Your task to perform on an android device: Search for alienware area 51 on costco, select the first entry, add it to the cart, then select checkout. Image 0: 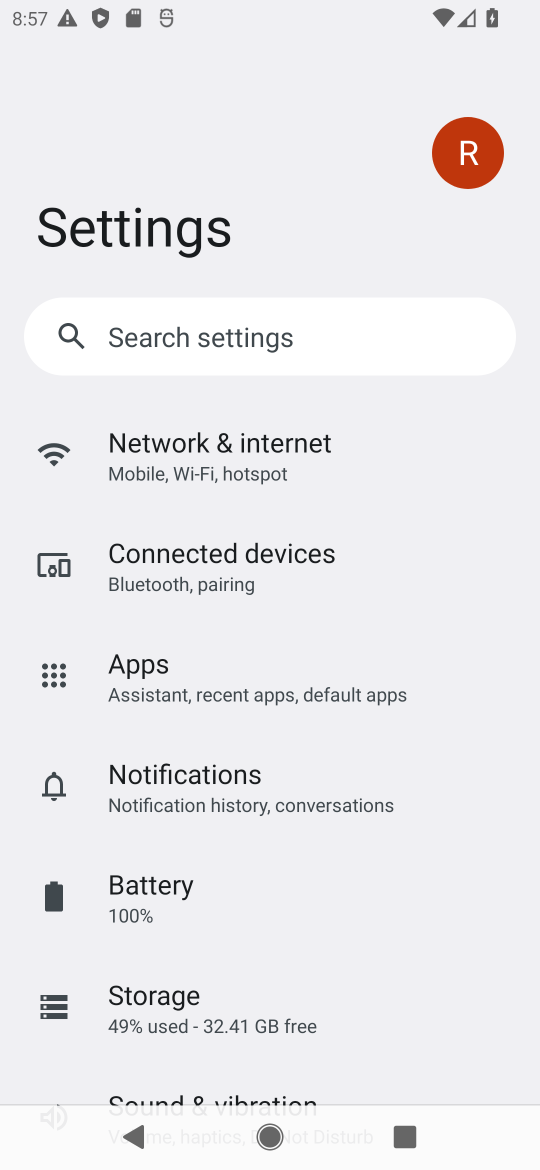
Step 0: press home button
Your task to perform on an android device: Search for alienware area 51 on costco, select the first entry, add it to the cart, then select checkout. Image 1: 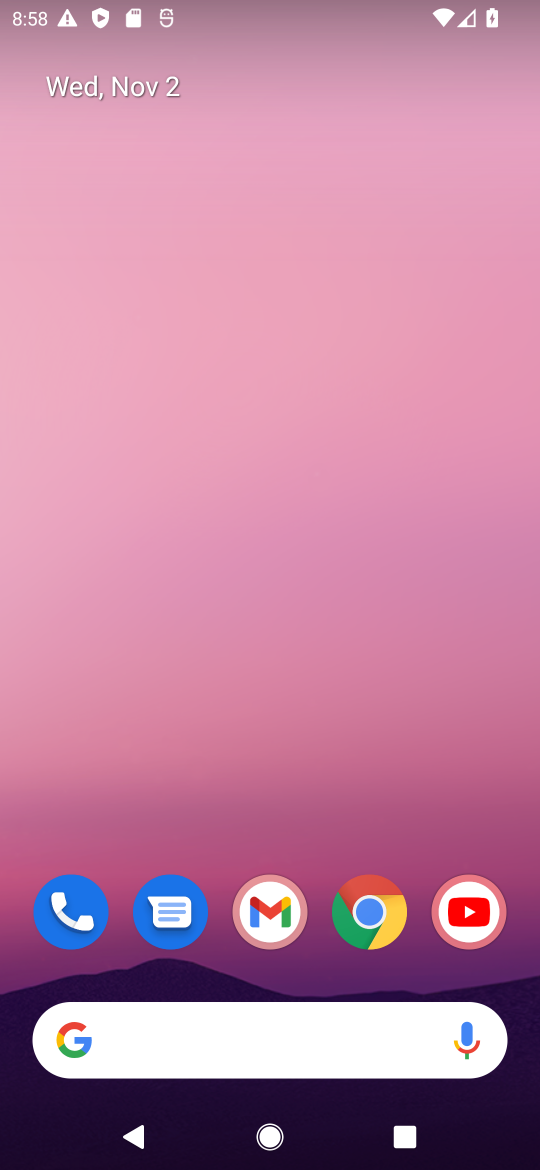
Step 1: drag from (344, 1112) to (241, 88)
Your task to perform on an android device: Search for alienware area 51 on costco, select the first entry, add it to the cart, then select checkout. Image 2: 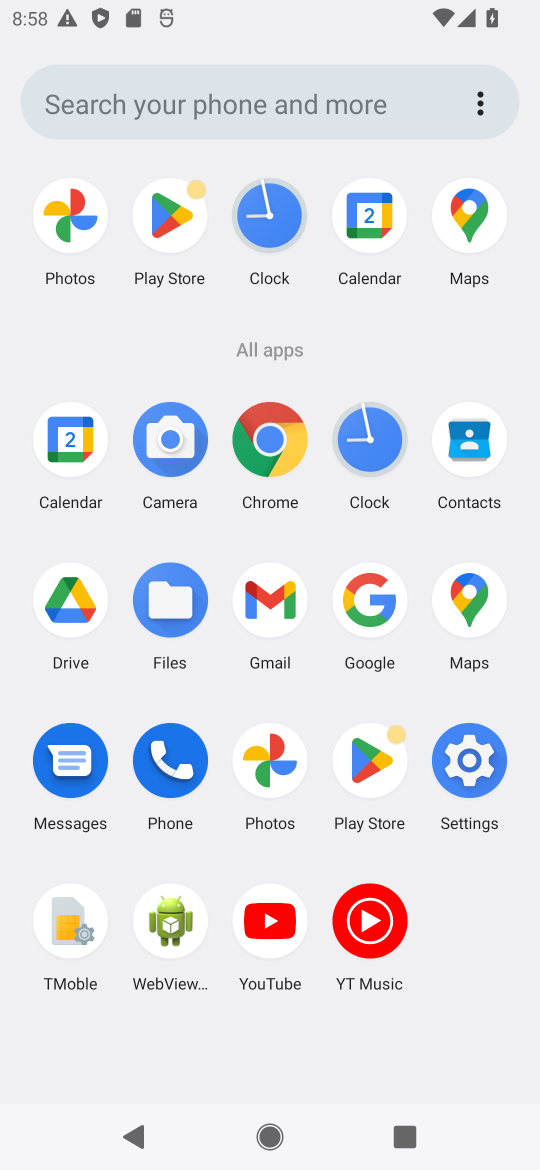
Step 2: click (260, 426)
Your task to perform on an android device: Search for alienware area 51 on costco, select the first entry, add it to the cart, then select checkout. Image 3: 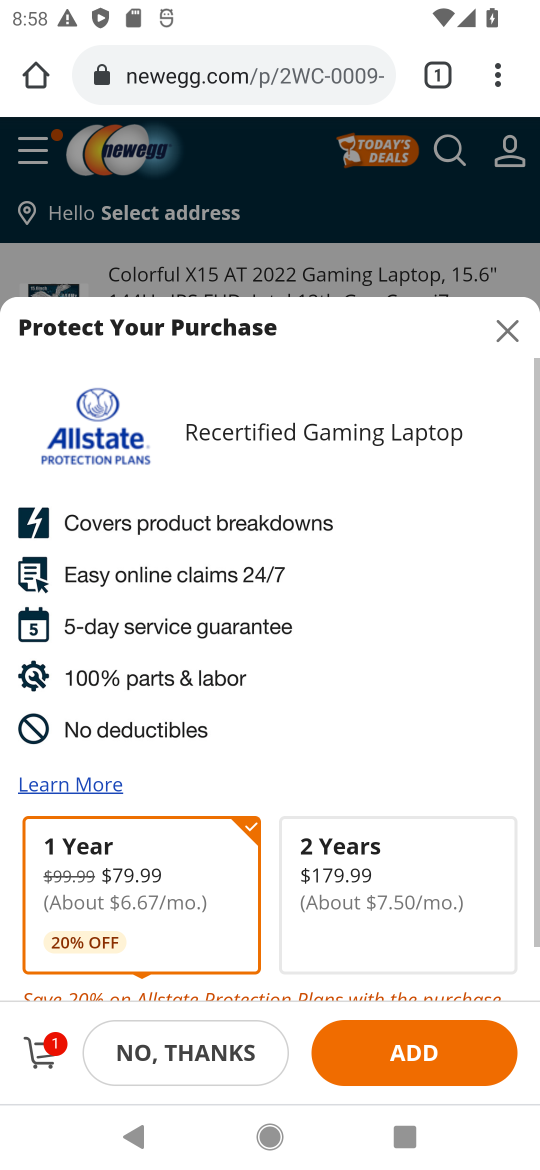
Step 3: click (228, 77)
Your task to perform on an android device: Search for alienware area 51 on costco, select the first entry, add it to the cart, then select checkout. Image 4: 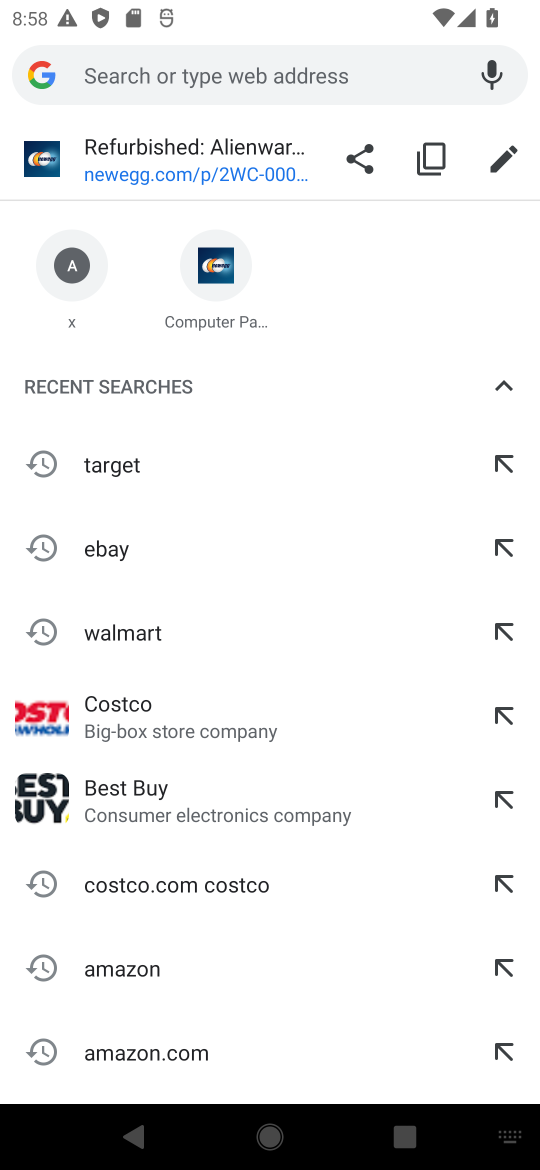
Step 4: click (192, 76)
Your task to perform on an android device: Search for alienware area 51 on costco, select the first entry, add it to the cart, then select checkout. Image 5: 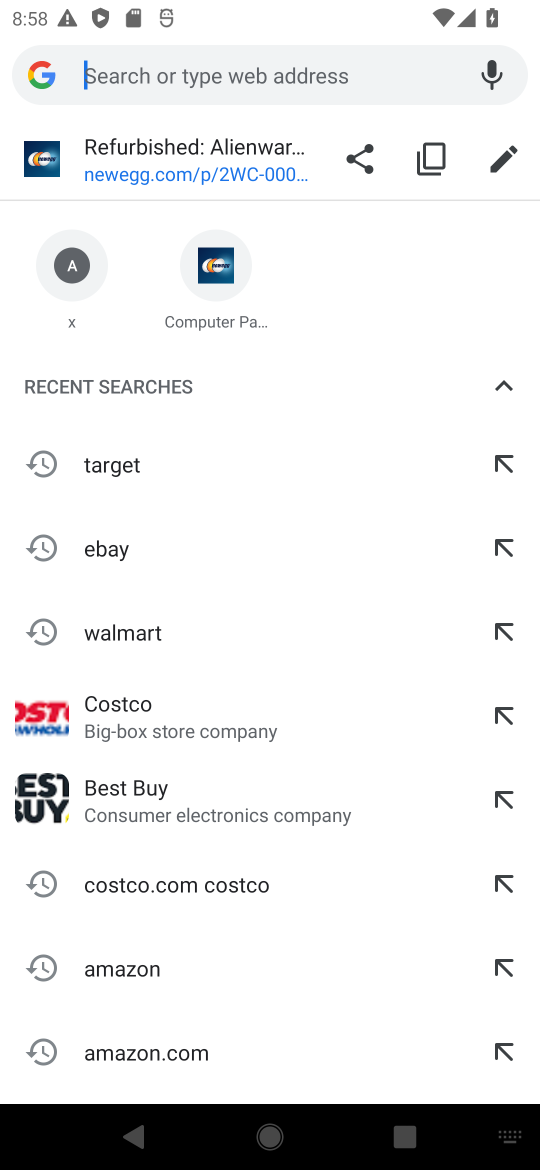
Step 5: type "costco"
Your task to perform on an android device: Search for alienware area 51 on costco, select the first entry, add it to the cart, then select checkout. Image 6: 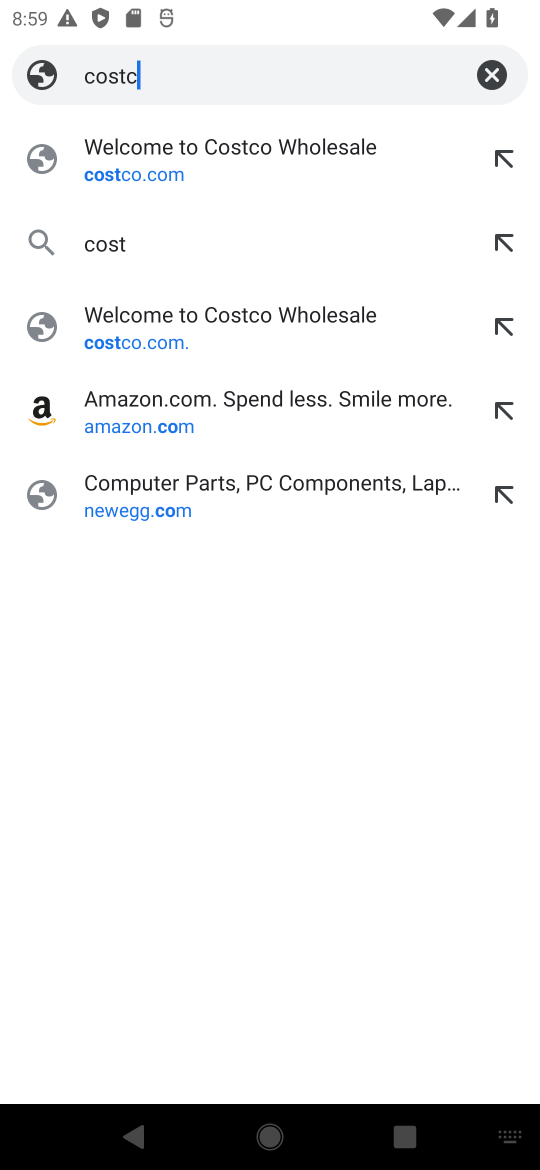
Step 6: type ""
Your task to perform on an android device: Search for alienware area 51 on costco, select the first entry, add it to the cart, then select checkout. Image 7: 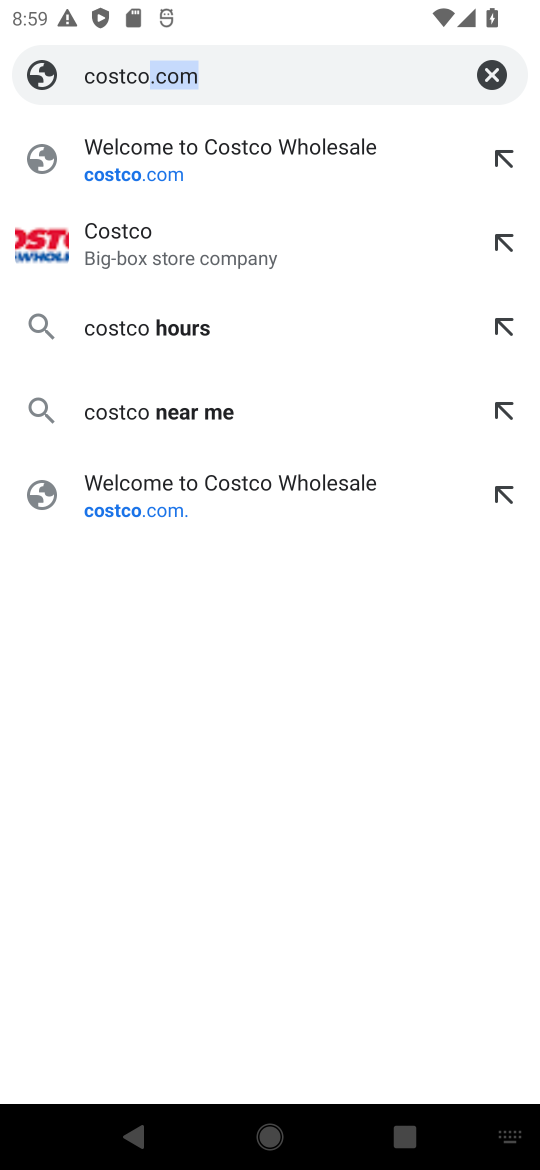
Step 7: click (135, 179)
Your task to perform on an android device: Search for alienware area 51 on costco, select the first entry, add it to the cart, then select checkout. Image 8: 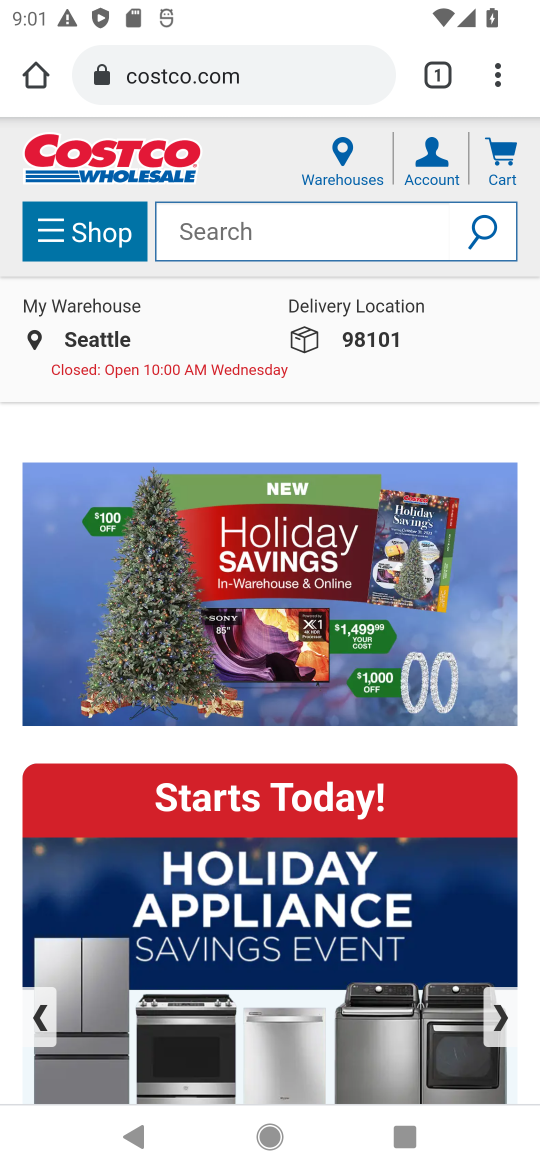
Step 8: click (208, 223)
Your task to perform on an android device: Search for alienware area 51 on costco, select the first entry, add it to the cart, then select checkout. Image 9: 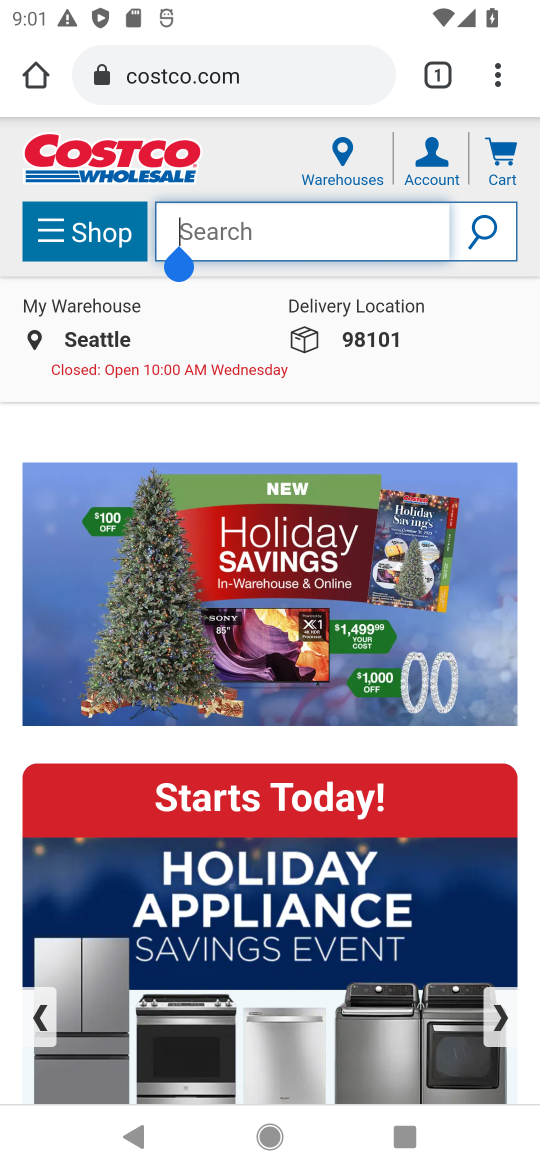
Step 9: type "alienware area 51"
Your task to perform on an android device: Search for alienware area 51 on costco, select the first entry, add it to the cart, then select checkout. Image 10: 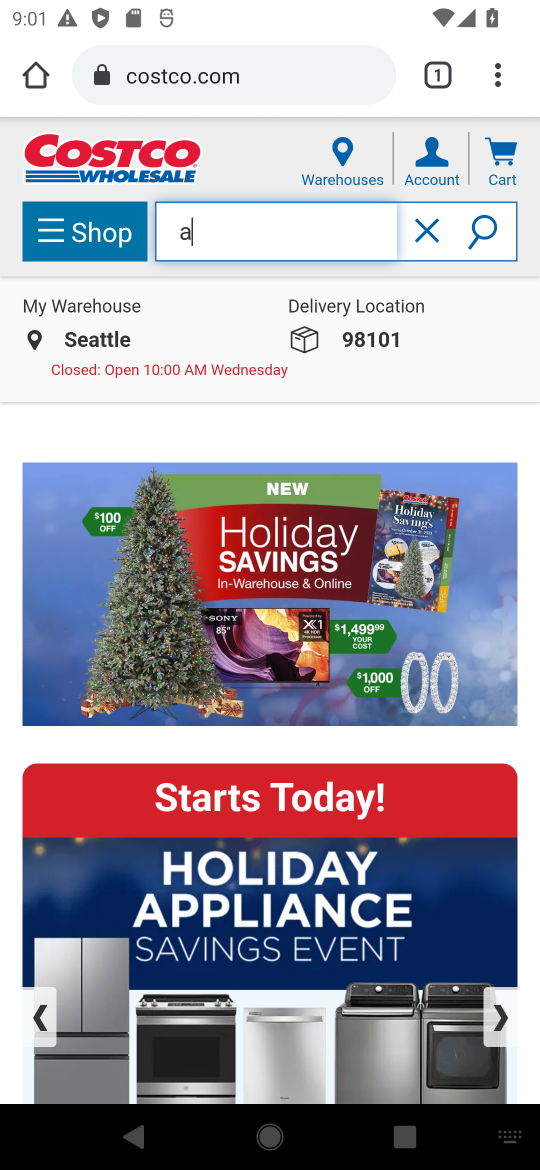
Step 10: type ""
Your task to perform on an android device: Search for alienware area 51 on costco, select the first entry, add it to the cart, then select checkout. Image 11: 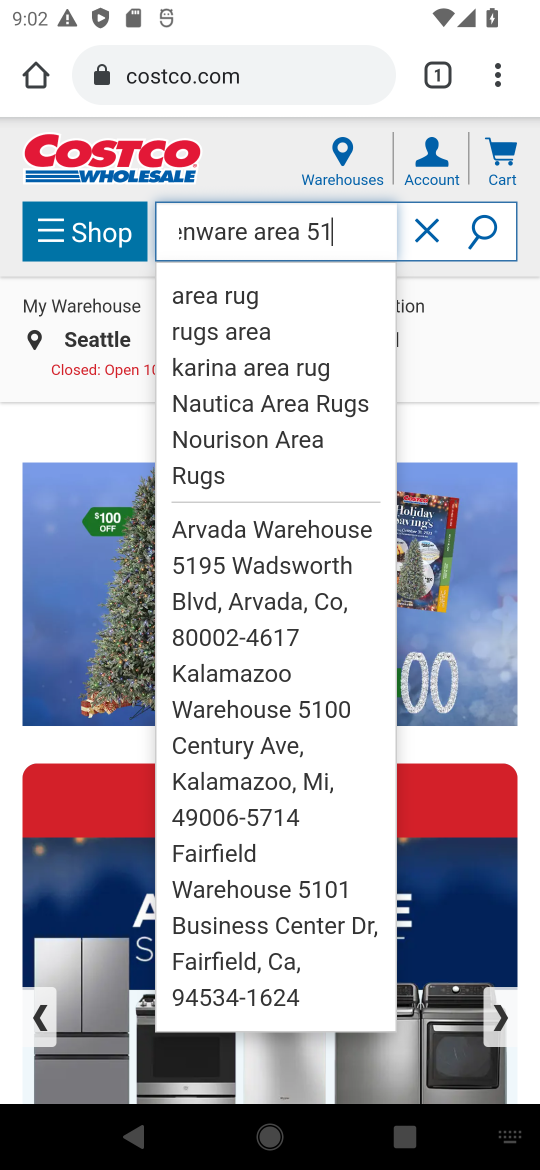
Step 11: click (476, 233)
Your task to perform on an android device: Search for alienware area 51 on costco, select the first entry, add it to the cart, then select checkout. Image 12: 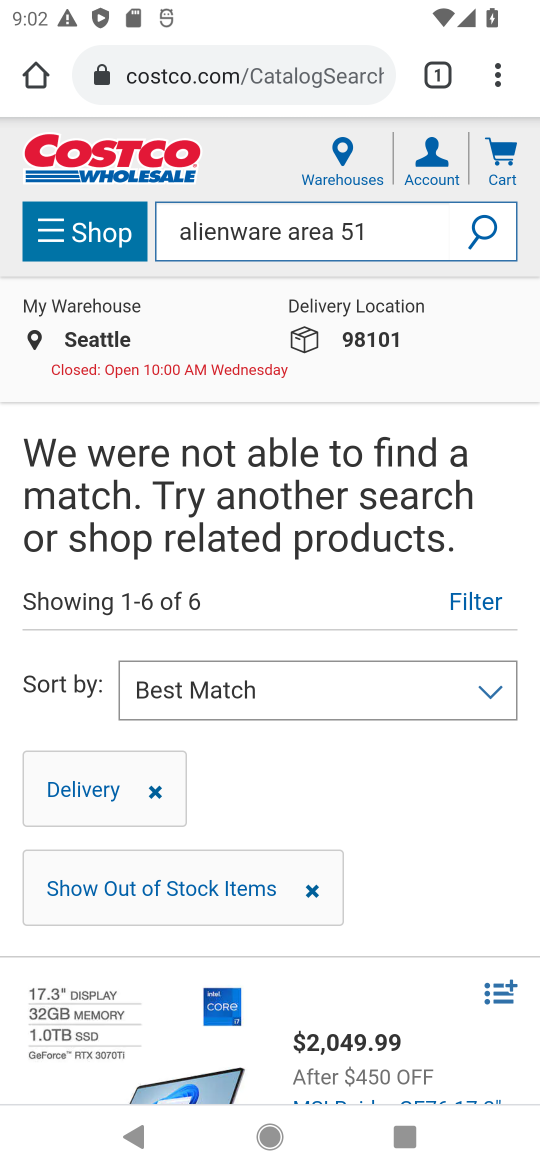
Step 12: task complete